Your task to perform on an android device: Google the capital of Argentina Image 0: 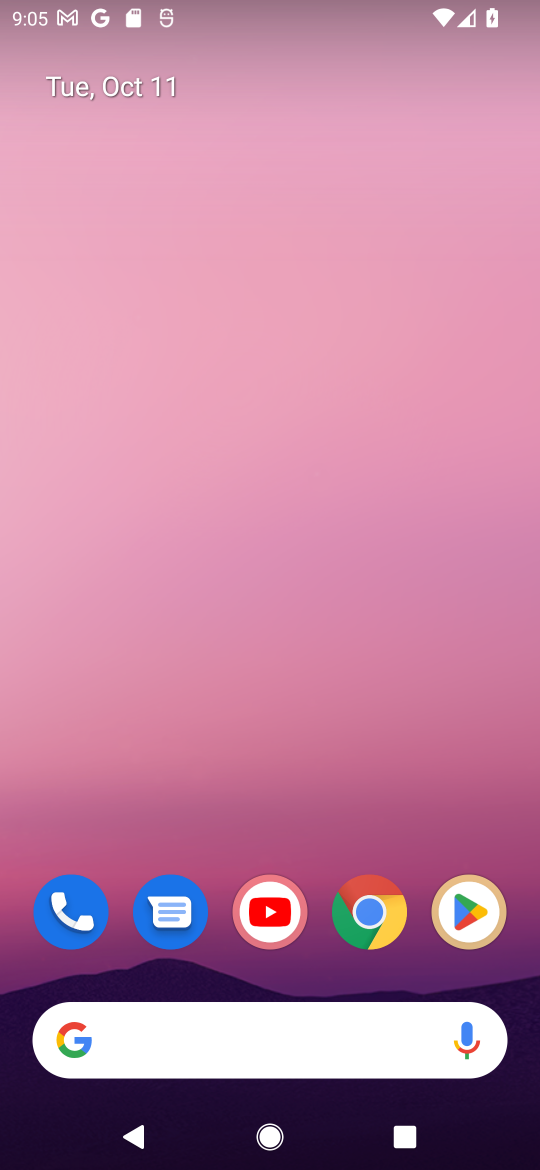
Step 0: click (358, 905)
Your task to perform on an android device: Google the capital of Argentina Image 1: 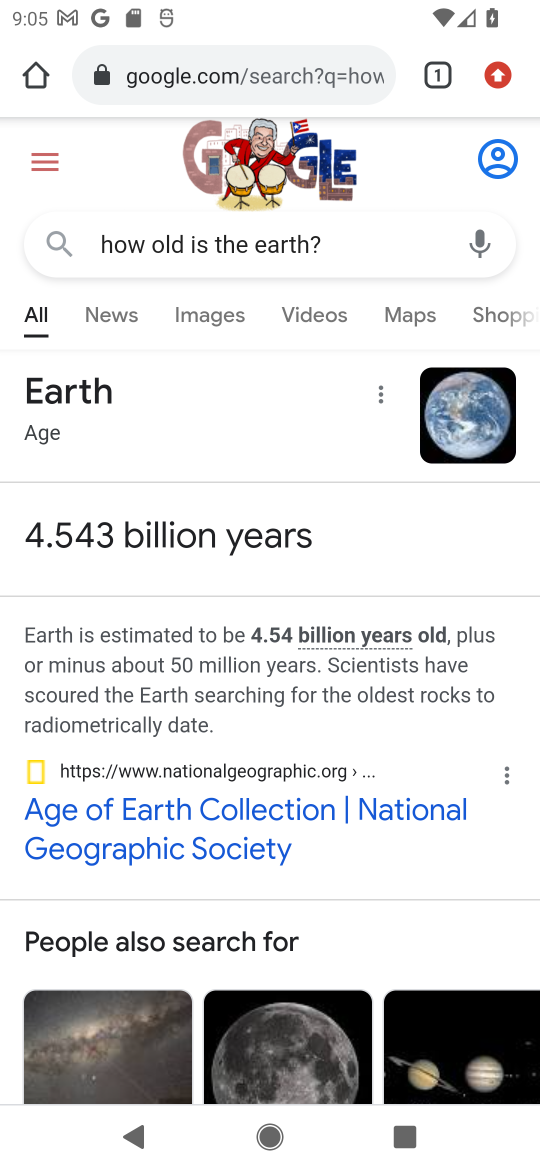
Step 1: click (248, 49)
Your task to perform on an android device: Google the capital of Argentina Image 2: 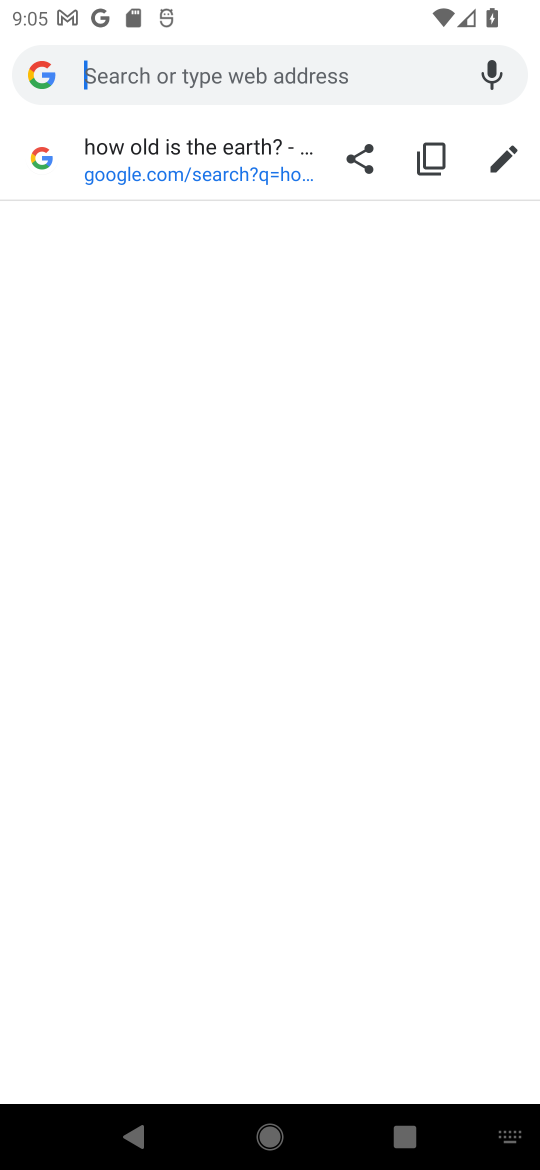
Step 2: type "capital of Argentina"
Your task to perform on an android device: Google the capital of Argentina Image 3: 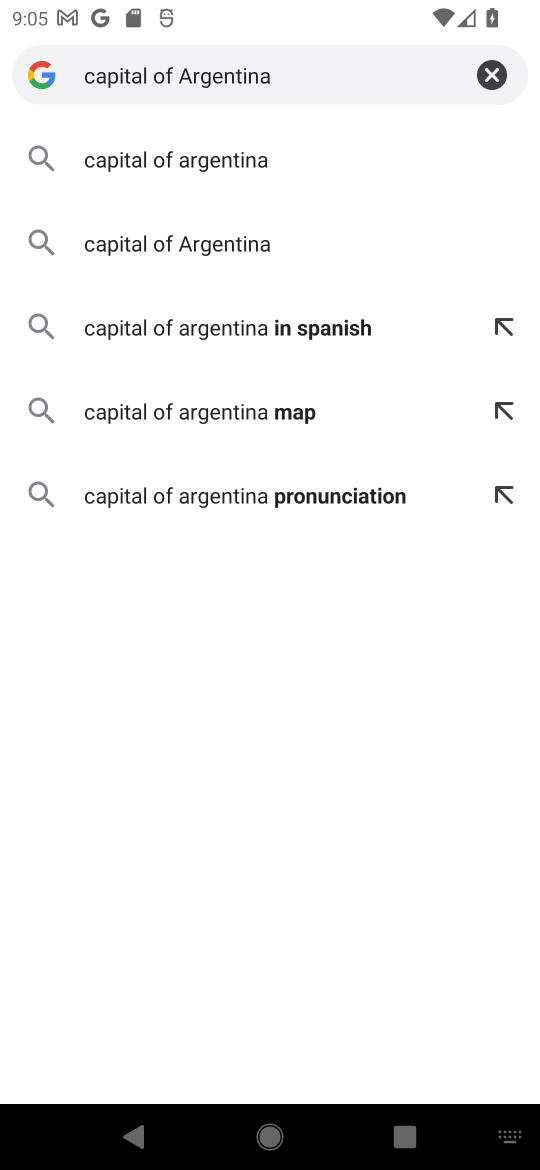
Step 3: click (196, 165)
Your task to perform on an android device: Google the capital of Argentina Image 4: 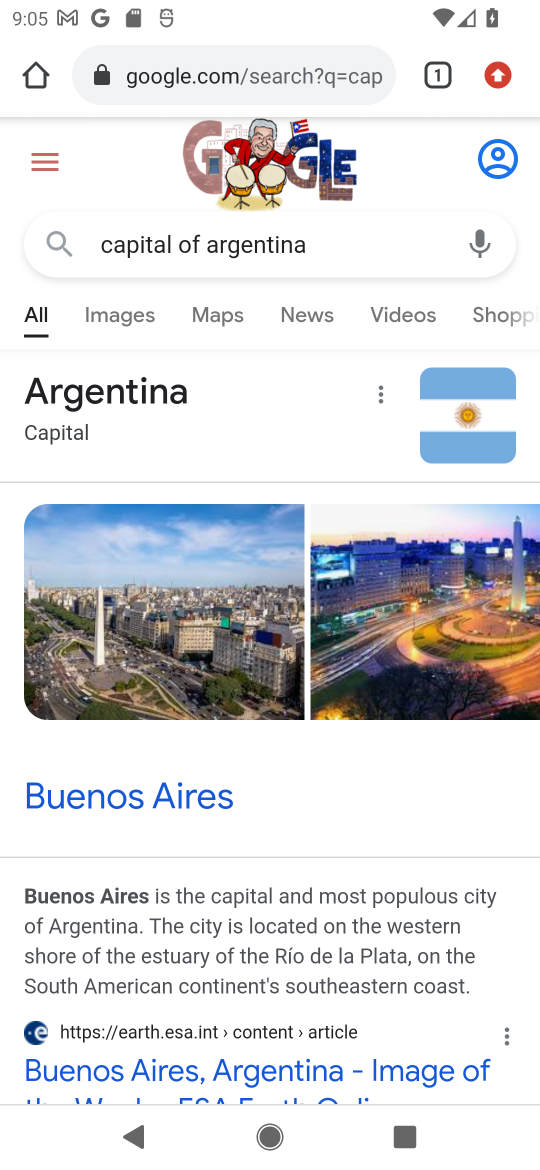
Step 4: task complete